Your task to perform on an android device: View the shopping cart on target. Search for "dell alienware" on target, select the first entry, and add it to the cart. Image 0: 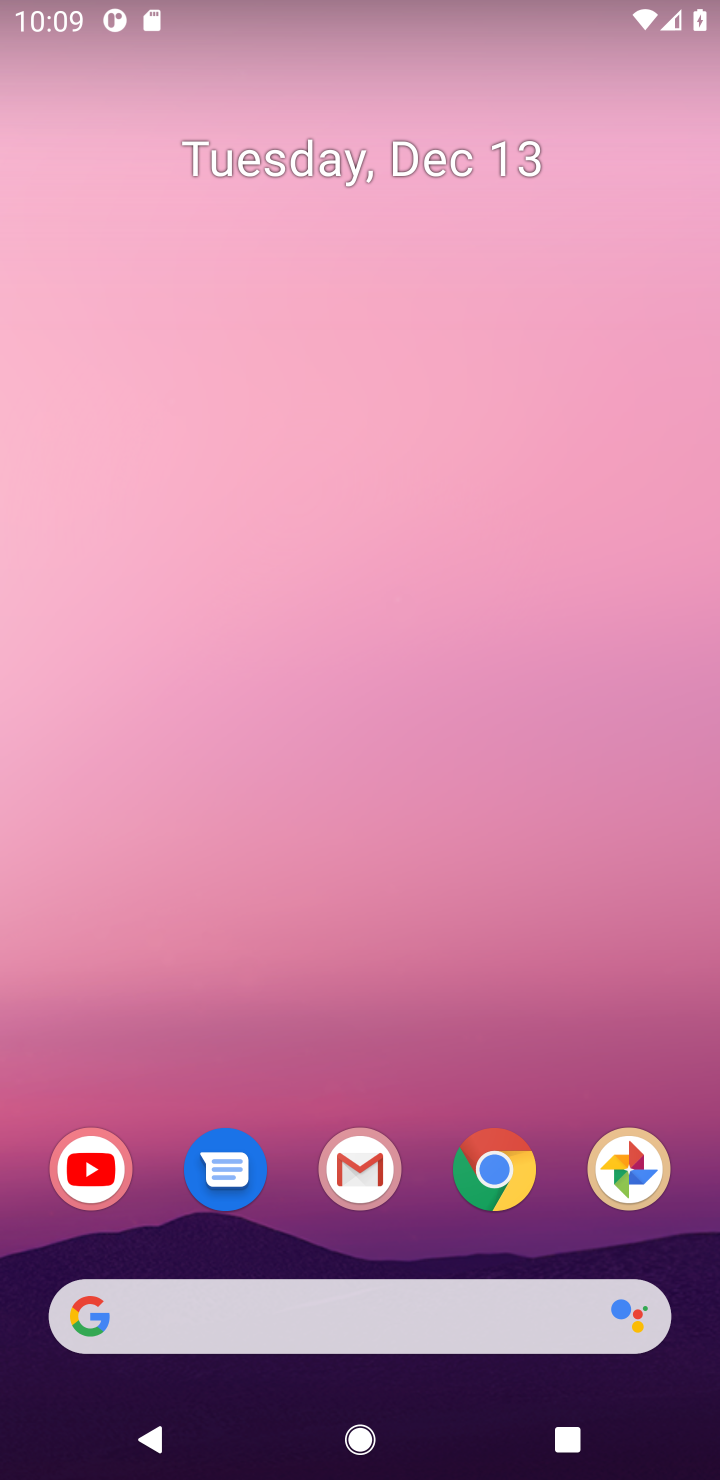
Step 0: click (464, 1158)
Your task to perform on an android device: View the shopping cart on target. Search for "dell alienware" on target, select the first entry, and add it to the cart. Image 1: 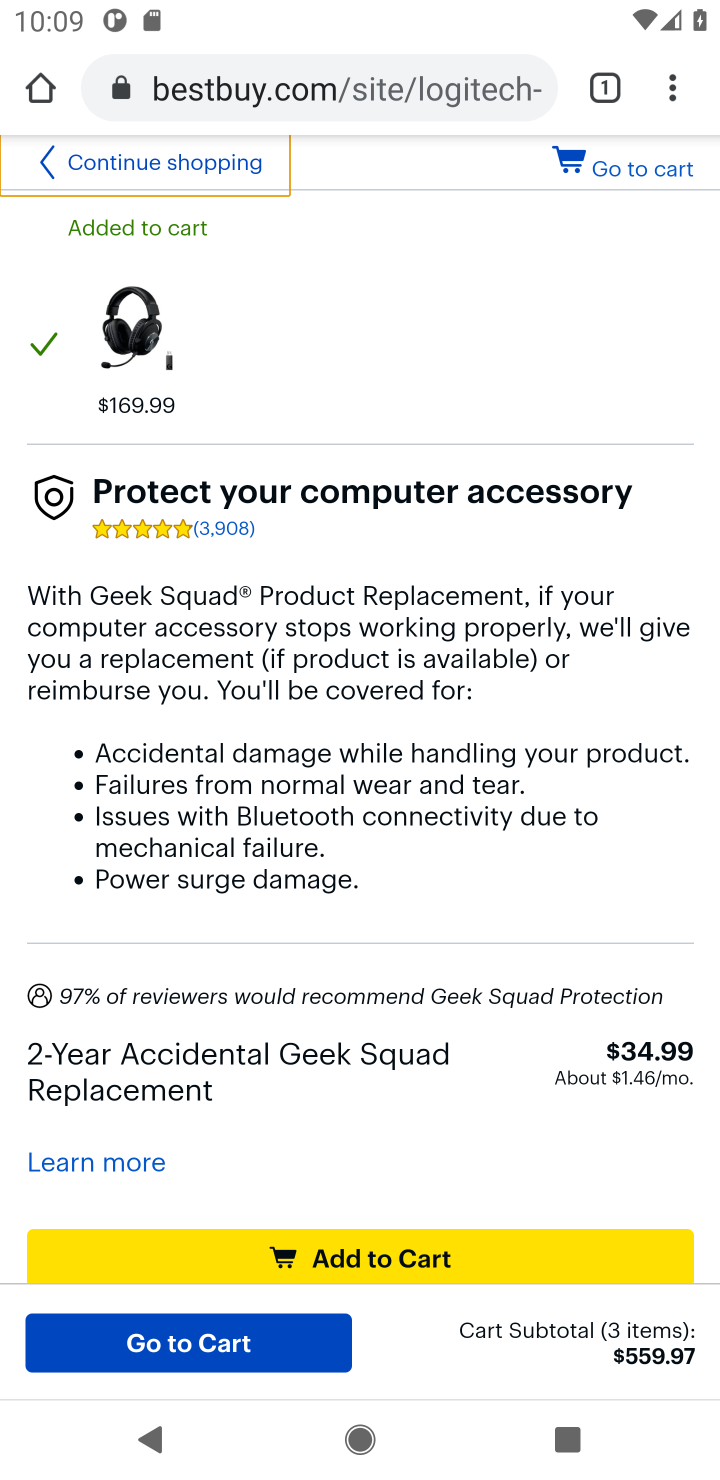
Step 1: task complete